Your task to perform on an android device: Do I have any events tomorrow? Image 0: 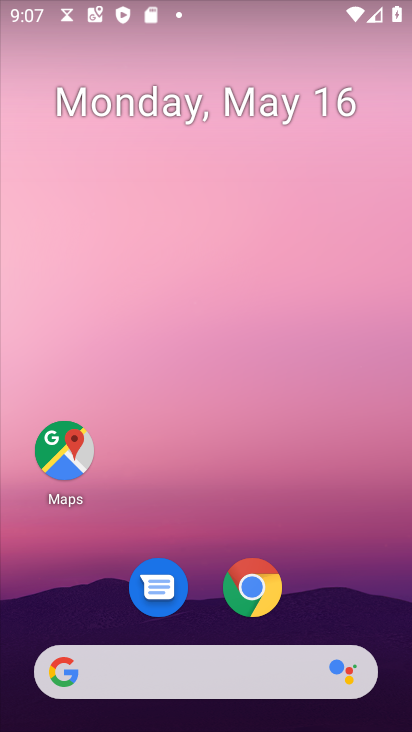
Step 0: drag from (328, 609) to (242, 162)
Your task to perform on an android device: Do I have any events tomorrow? Image 1: 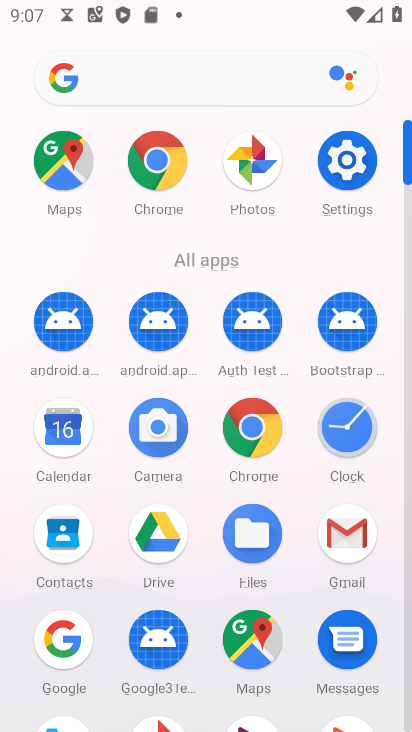
Step 1: click (71, 443)
Your task to perform on an android device: Do I have any events tomorrow? Image 2: 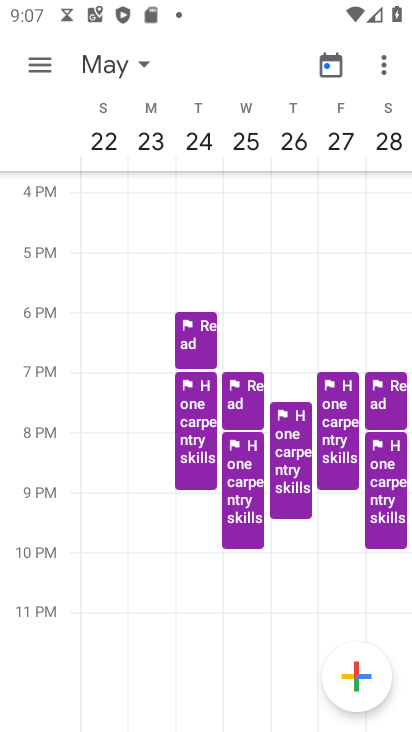
Step 2: click (40, 66)
Your task to perform on an android device: Do I have any events tomorrow? Image 3: 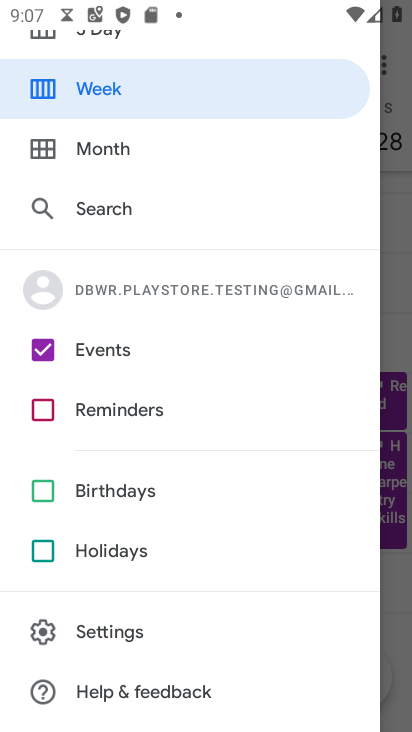
Step 3: drag from (133, 106) to (102, 511)
Your task to perform on an android device: Do I have any events tomorrow? Image 4: 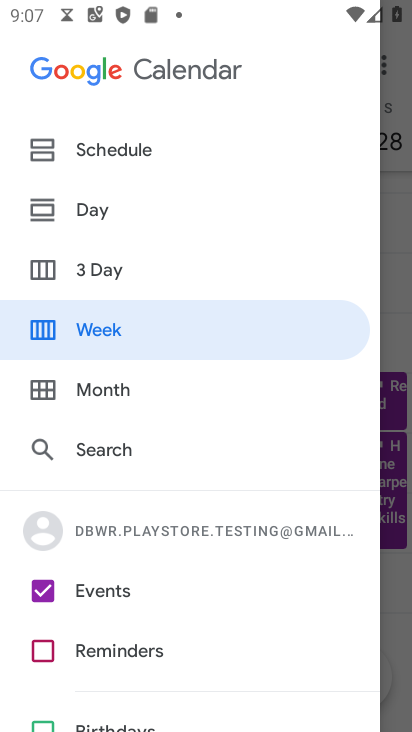
Step 4: click (134, 153)
Your task to perform on an android device: Do I have any events tomorrow? Image 5: 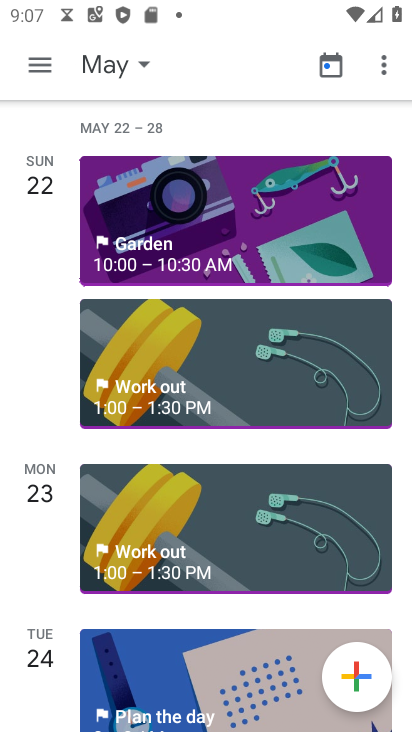
Step 5: click (123, 54)
Your task to perform on an android device: Do I have any events tomorrow? Image 6: 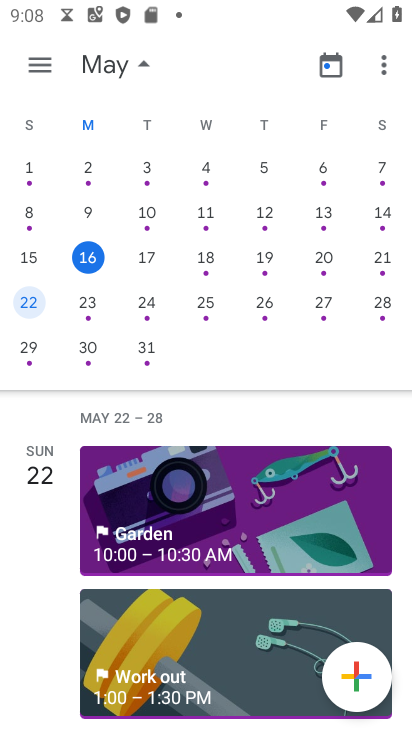
Step 6: click (210, 259)
Your task to perform on an android device: Do I have any events tomorrow? Image 7: 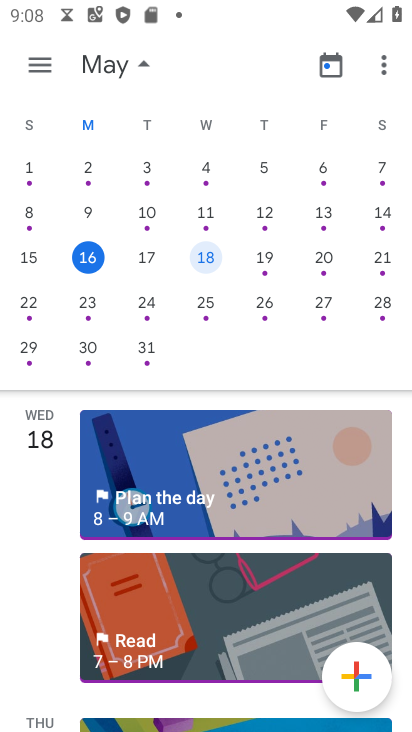
Step 7: click (131, 61)
Your task to perform on an android device: Do I have any events tomorrow? Image 8: 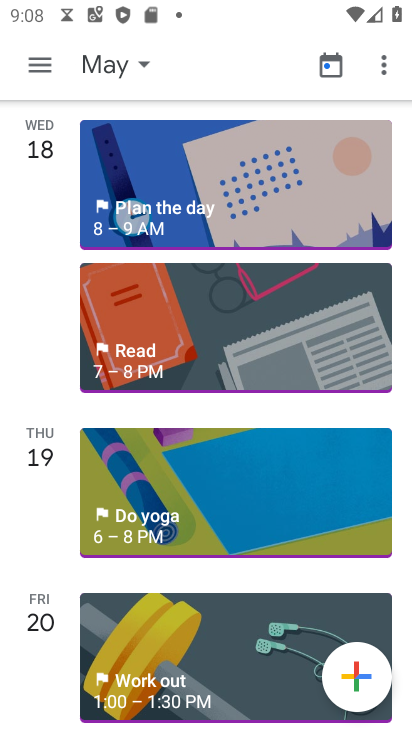
Step 8: task complete